Your task to perform on an android device: Play the last video I watched on Youtube Image 0: 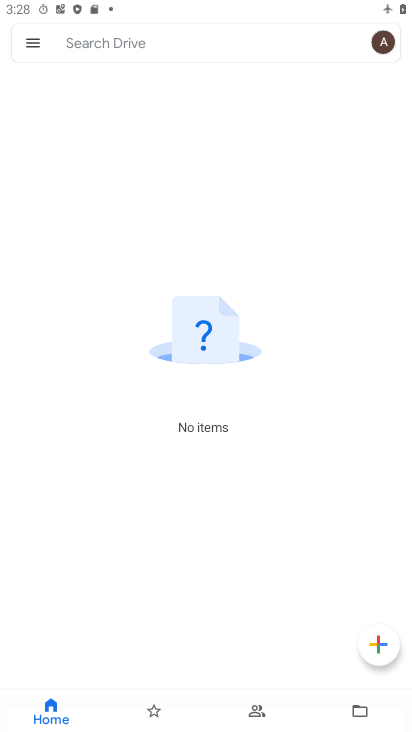
Step 0: press home button
Your task to perform on an android device: Play the last video I watched on Youtube Image 1: 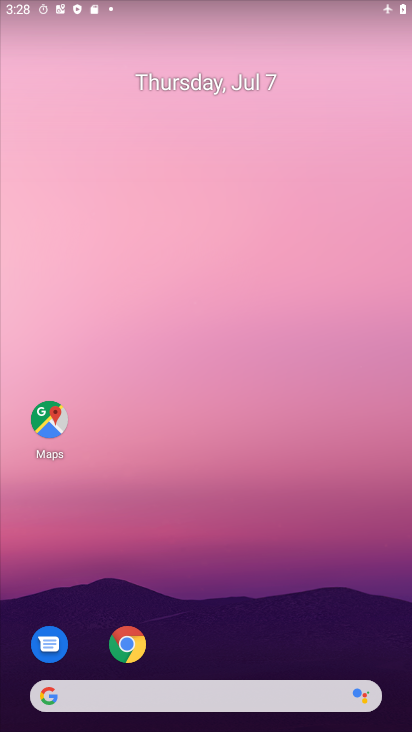
Step 1: drag from (252, 651) to (247, 110)
Your task to perform on an android device: Play the last video I watched on Youtube Image 2: 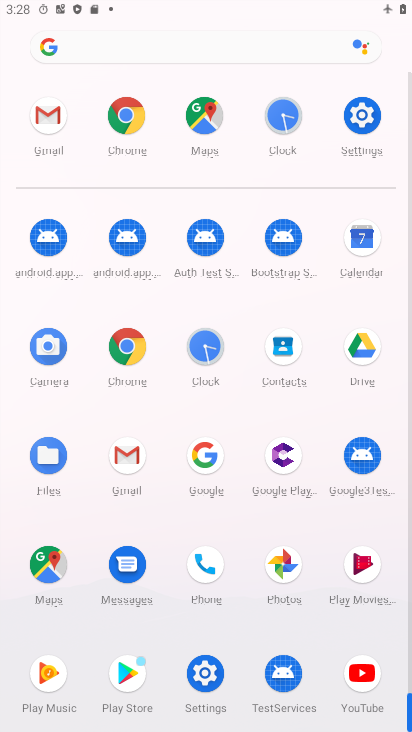
Step 2: click (352, 684)
Your task to perform on an android device: Play the last video I watched on Youtube Image 3: 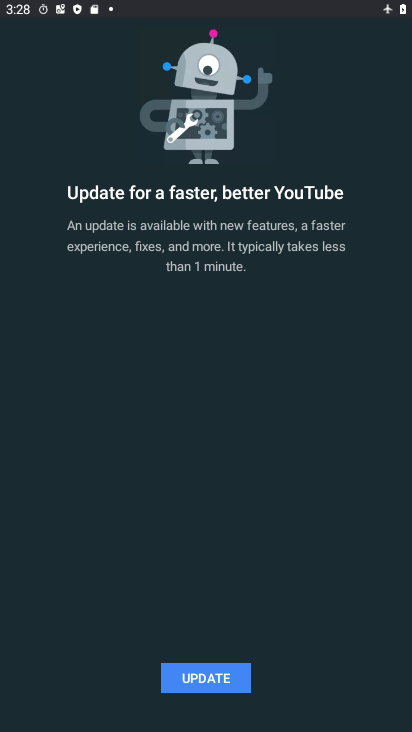
Step 3: press home button
Your task to perform on an android device: Play the last video I watched on Youtube Image 4: 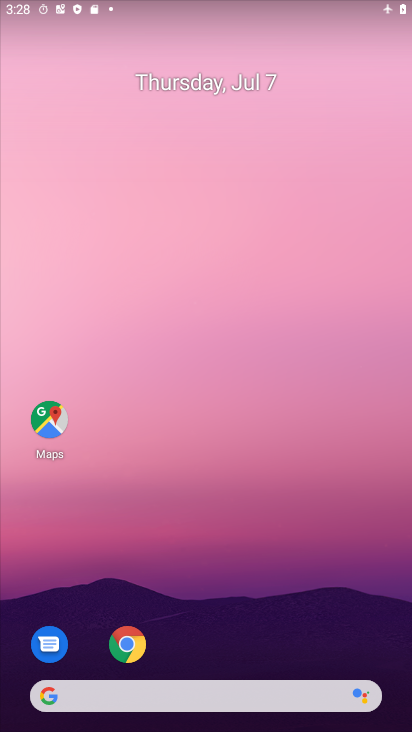
Step 4: drag from (279, 660) to (246, 160)
Your task to perform on an android device: Play the last video I watched on Youtube Image 5: 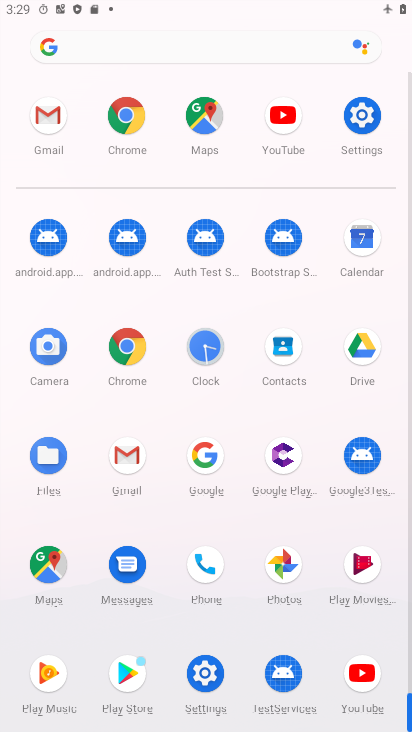
Step 5: click (372, 668)
Your task to perform on an android device: Play the last video I watched on Youtube Image 6: 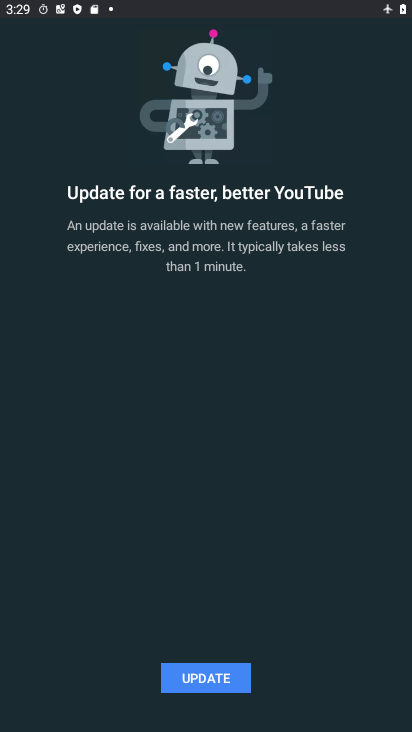
Step 6: drag from (192, 676) to (124, 676)
Your task to perform on an android device: Play the last video I watched on Youtube Image 7: 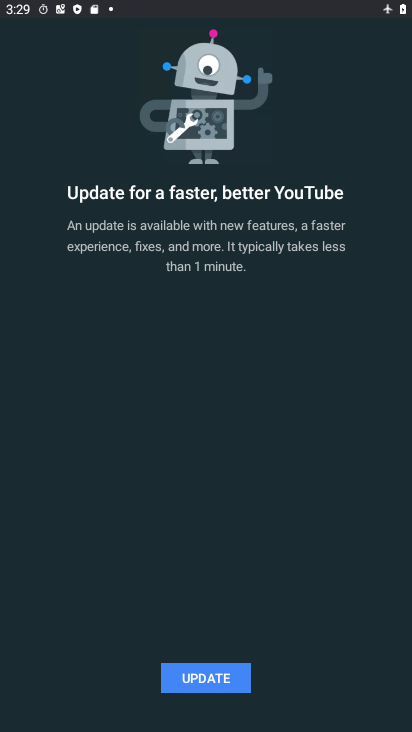
Step 7: click (190, 667)
Your task to perform on an android device: Play the last video I watched on Youtube Image 8: 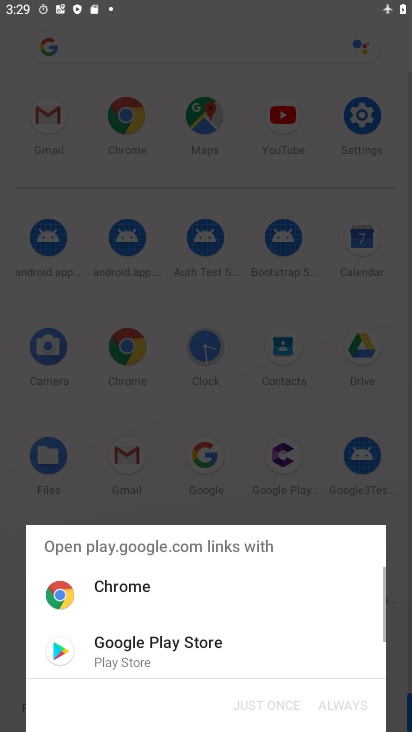
Step 8: click (182, 653)
Your task to perform on an android device: Play the last video I watched on Youtube Image 9: 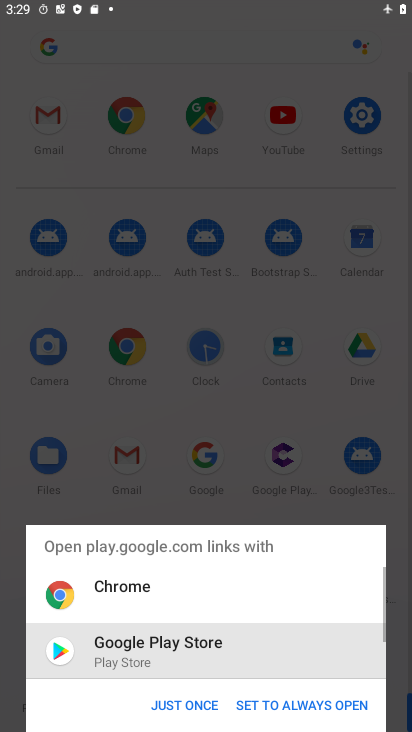
Step 9: click (186, 696)
Your task to perform on an android device: Play the last video I watched on Youtube Image 10: 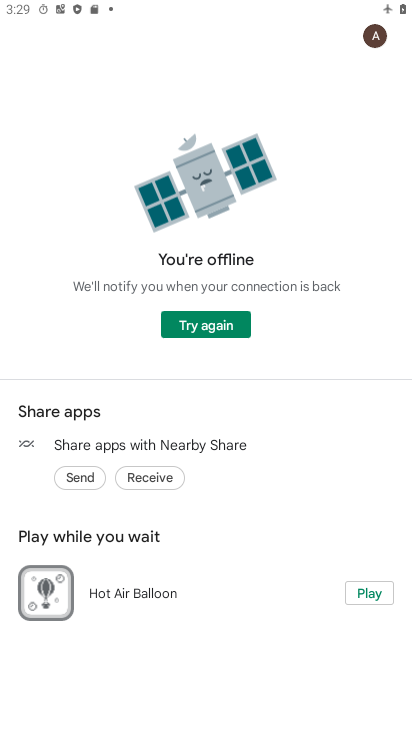
Step 10: task complete